Your task to perform on an android device: What's the weather going to be tomorrow? Image 0: 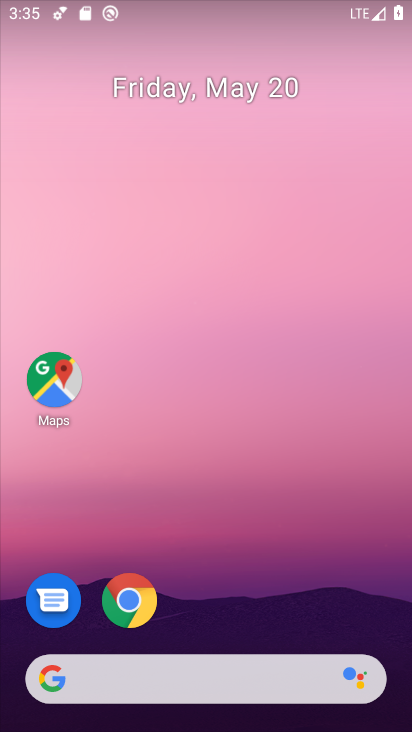
Step 0: click (243, 679)
Your task to perform on an android device: What's the weather going to be tomorrow? Image 1: 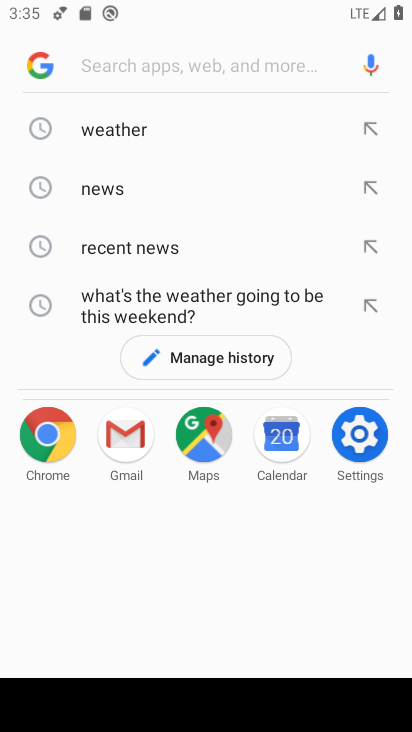
Step 1: click (131, 128)
Your task to perform on an android device: What's the weather going to be tomorrow? Image 2: 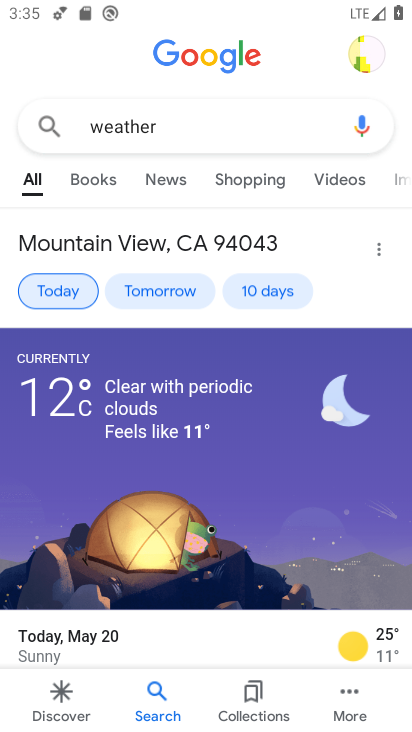
Step 2: click (178, 286)
Your task to perform on an android device: What's the weather going to be tomorrow? Image 3: 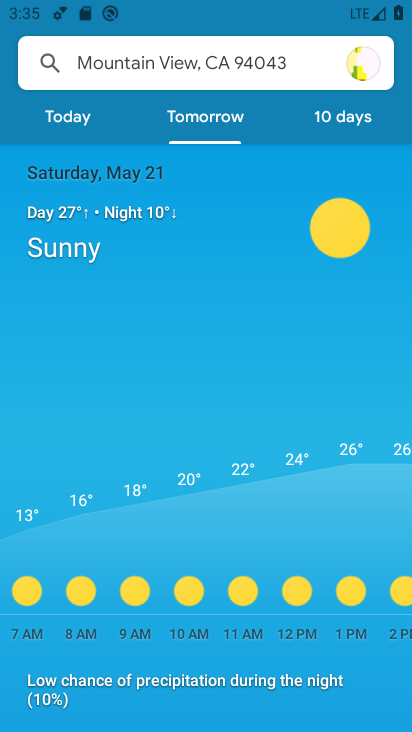
Step 3: task complete